Your task to perform on an android device: Search for vegetarian restaurants on Maps Image 0: 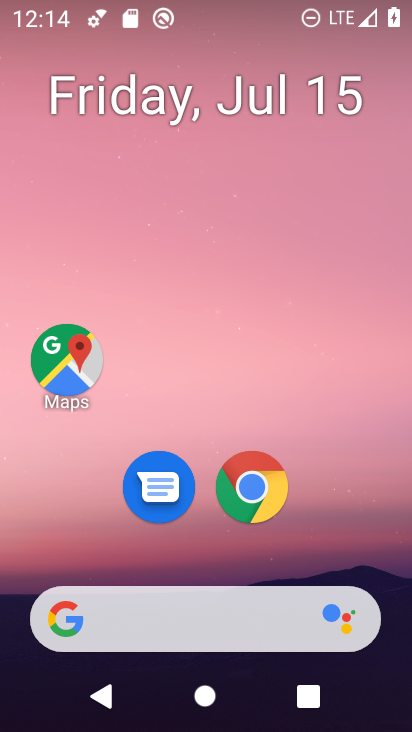
Step 0: drag from (221, 607) to (215, 144)
Your task to perform on an android device: Search for vegetarian restaurants on Maps Image 1: 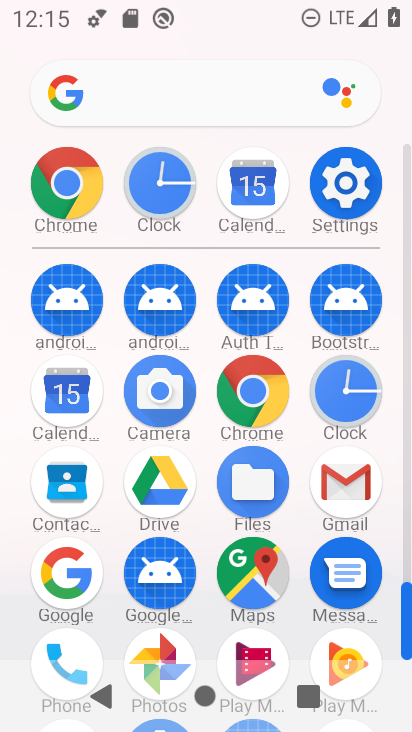
Step 1: click (267, 572)
Your task to perform on an android device: Search for vegetarian restaurants on Maps Image 2: 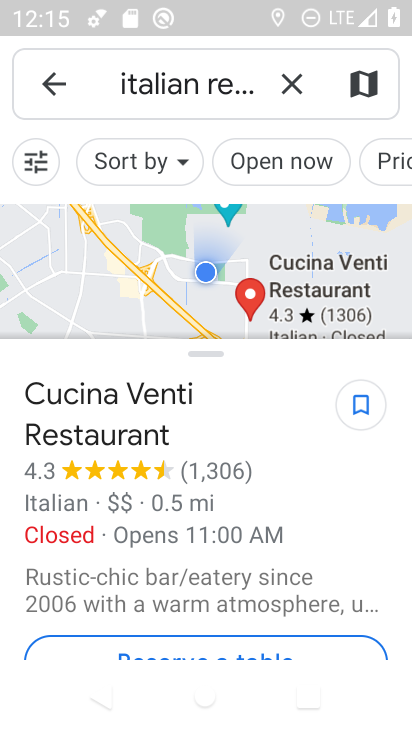
Step 2: click (285, 83)
Your task to perform on an android device: Search for vegetarian restaurants on Maps Image 3: 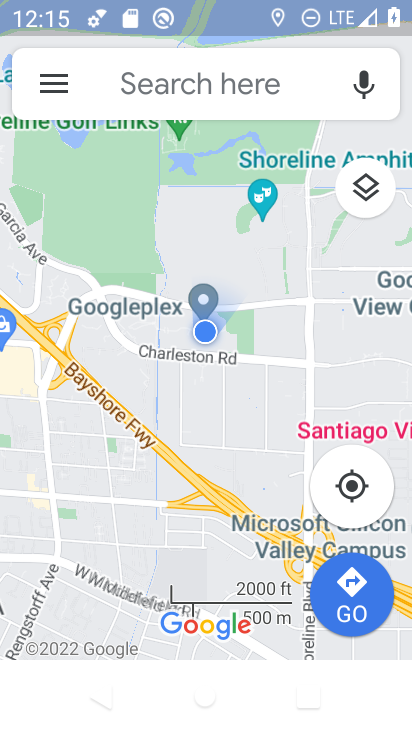
Step 3: click (204, 85)
Your task to perform on an android device: Search for vegetarian restaurants on Maps Image 4: 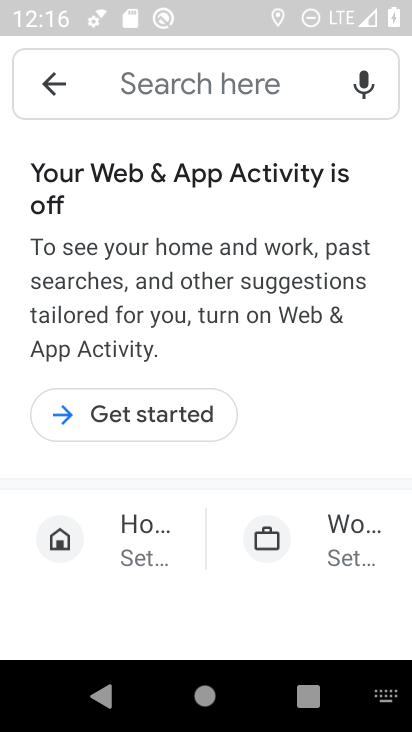
Step 4: type "vegetarian"
Your task to perform on an android device: Search for vegetarian restaurants on Maps Image 5: 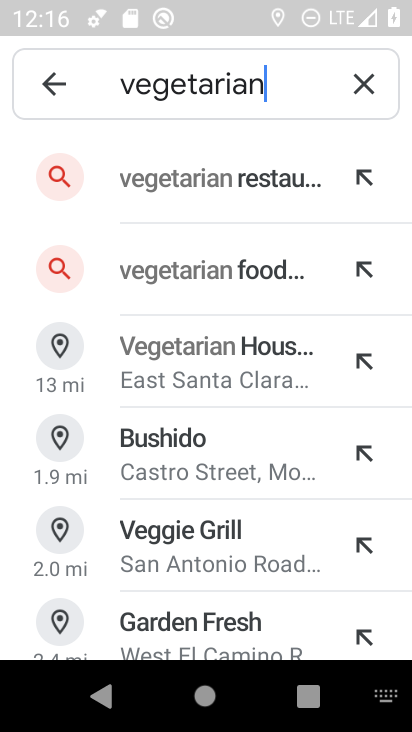
Step 5: click (225, 179)
Your task to perform on an android device: Search for vegetarian restaurants on Maps Image 6: 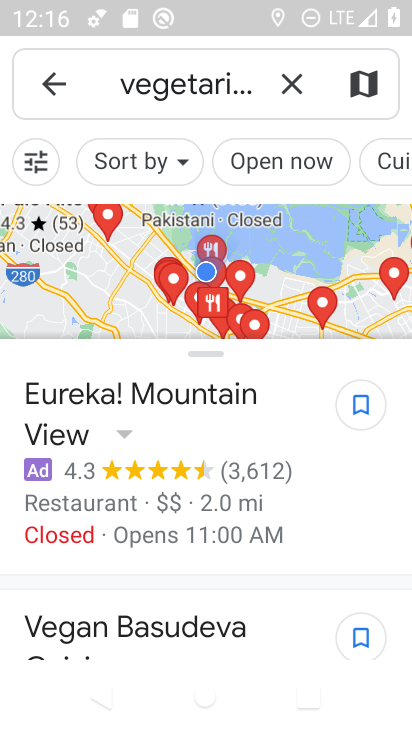
Step 6: task complete